Your task to perform on an android device: turn on airplane mode Image 0: 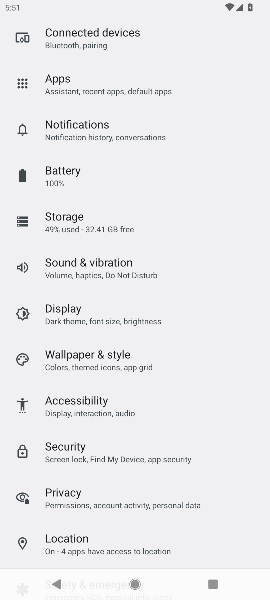
Step 0: drag from (142, 60) to (164, 377)
Your task to perform on an android device: turn on airplane mode Image 1: 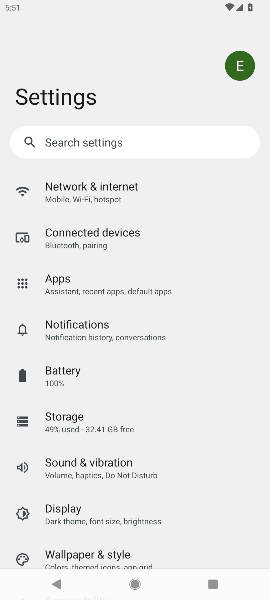
Step 1: click (88, 198)
Your task to perform on an android device: turn on airplane mode Image 2: 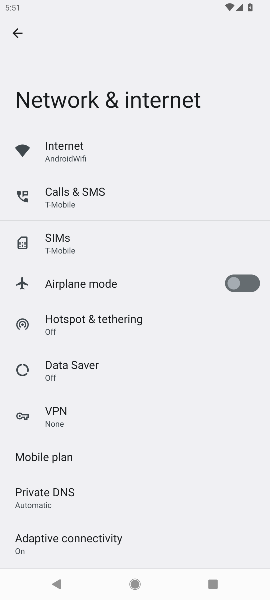
Step 2: click (235, 282)
Your task to perform on an android device: turn on airplane mode Image 3: 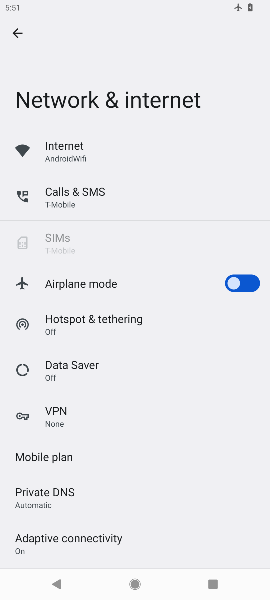
Step 3: task complete